Your task to perform on an android device: Check the news Image 0: 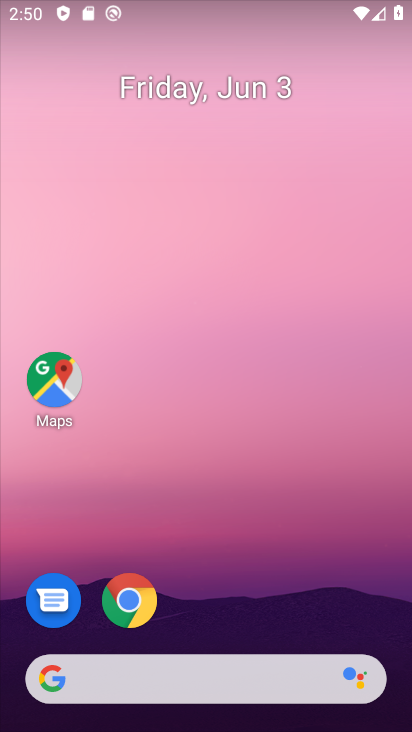
Step 0: drag from (9, 300) to (100, 320)
Your task to perform on an android device: Check the news Image 1: 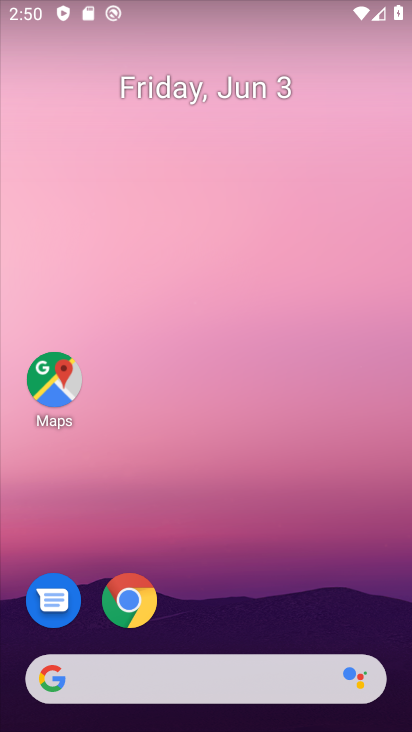
Step 1: drag from (28, 292) to (398, 336)
Your task to perform on an android device: Check the news Image 2: 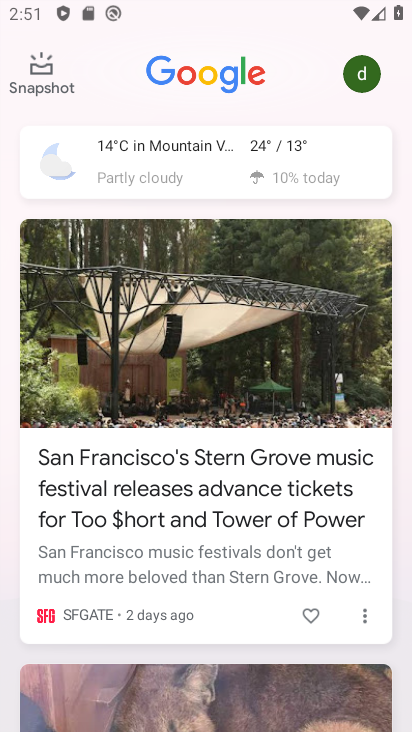
Step 2: drag from (219, 543) to (237, 162)
Your task to perform on an android device: Check the news Image 3: 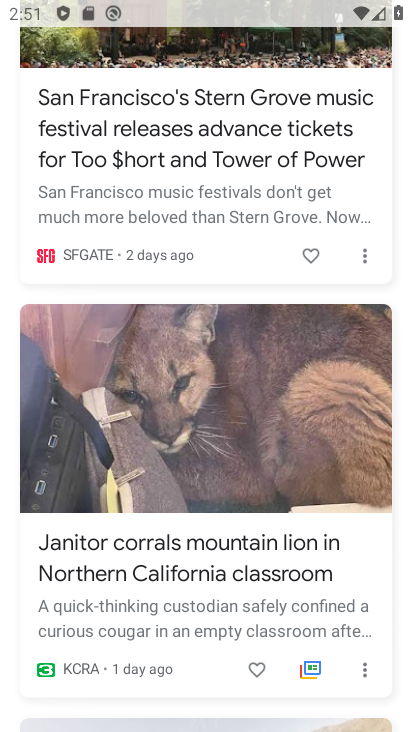
Step 3: drag from (251, 523) to (263, 139)
Your task to perform on an android device: Check the news Image 4: 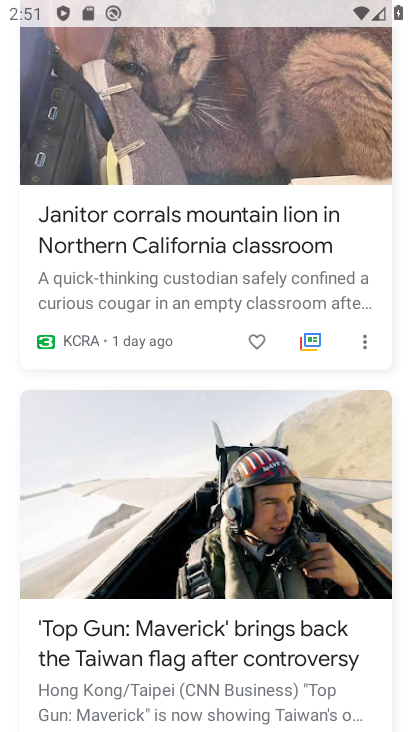
Step 4: drag from (239, 467) to (165, 190)
Your task to perform on an android device: Check the news Image 5: 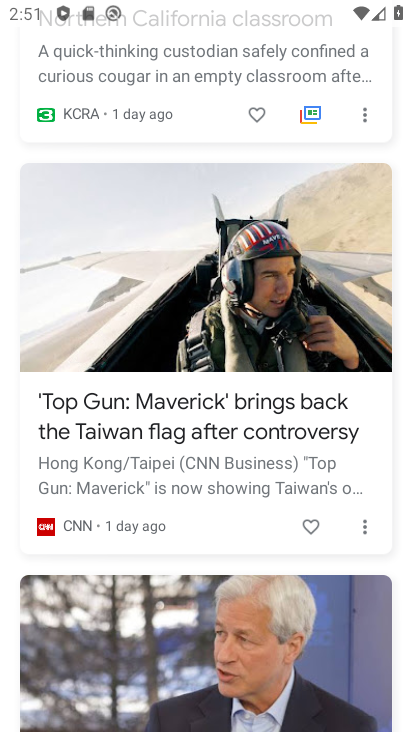
Step 5: click (165, 190)
Your task to perform on an android device: Check the news Image 6: 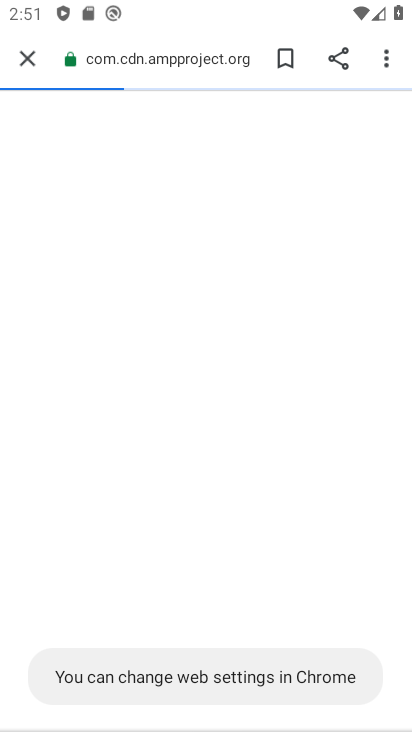
Step 6: task complete